Your task to perform on an android device: Set the phone to "Do not disturb". Image 0: 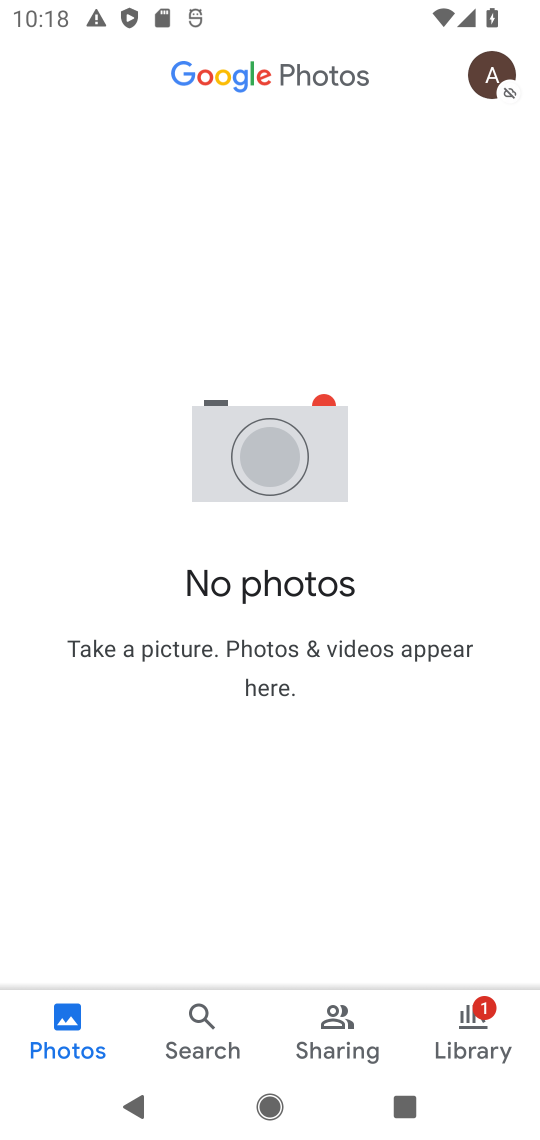
Step 0: press home button
Your task to perform on an android device: Set the phone to "Do not disturb". Image 1: 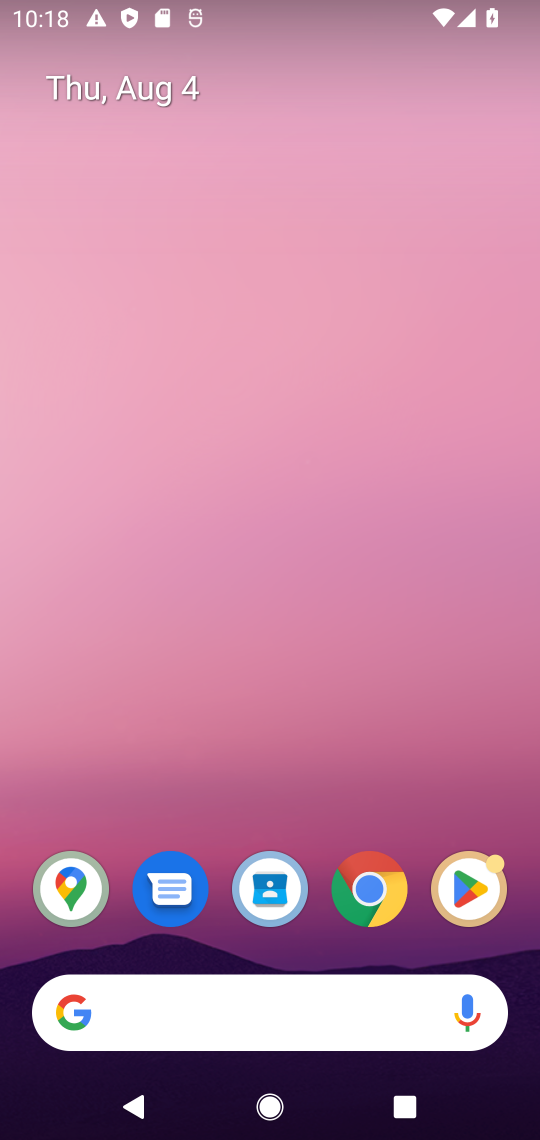
Step 1: drag from (301, 809) to (339, 318)
Your task to perform on an android device: Set the phone to "Do not disturb". Image 2: 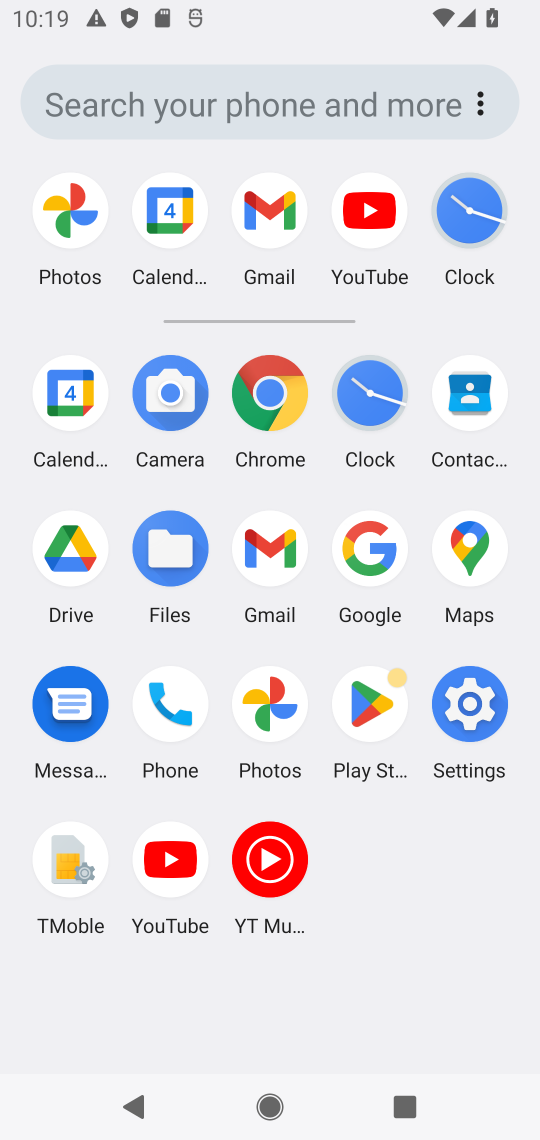
Step 2: click (482, 710)
Your task to perform on an android device: Set the phone to "Do not disturb". Image 3: 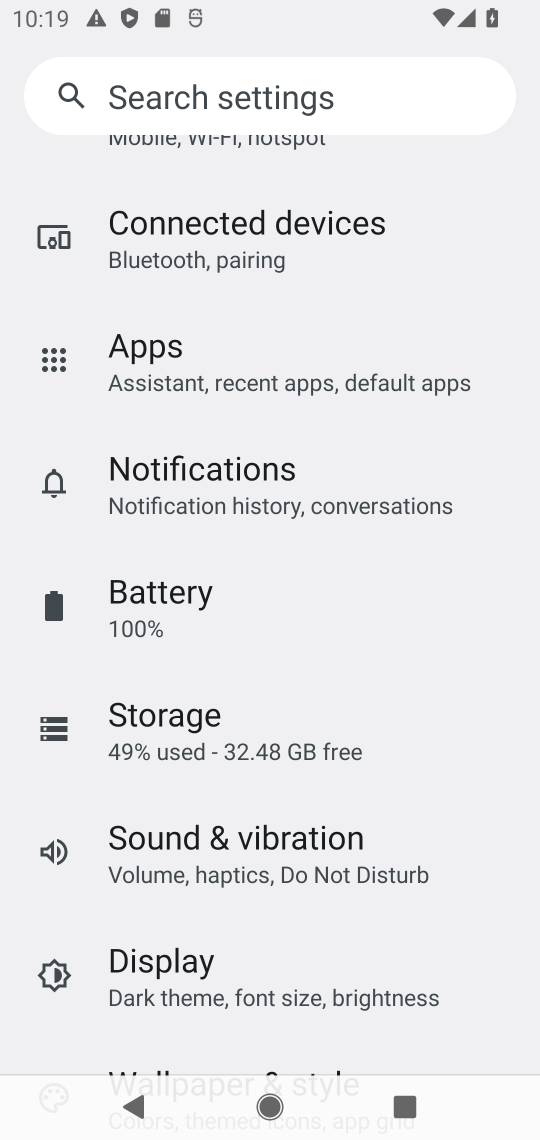
Step 3: drag from (466, 934) to (475, 708)
Your task to perform on an android device: Set the phone to "Do not disturb". Image 4: 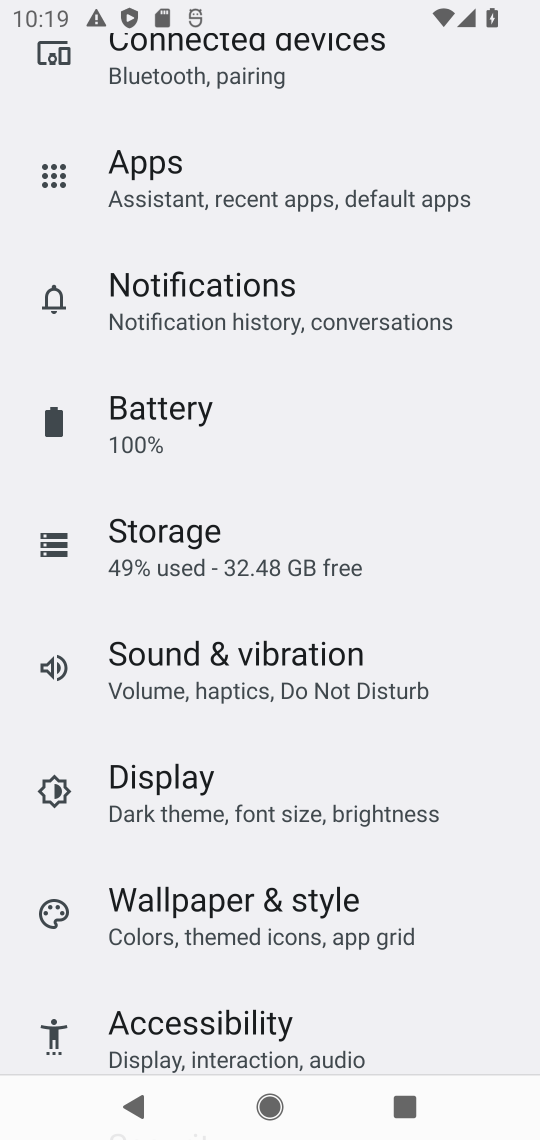
Step 4: drag from (453, 983) to (457, 756)
Your task to perform on an android device: Set the phone to "Do not disturb". Image 5: 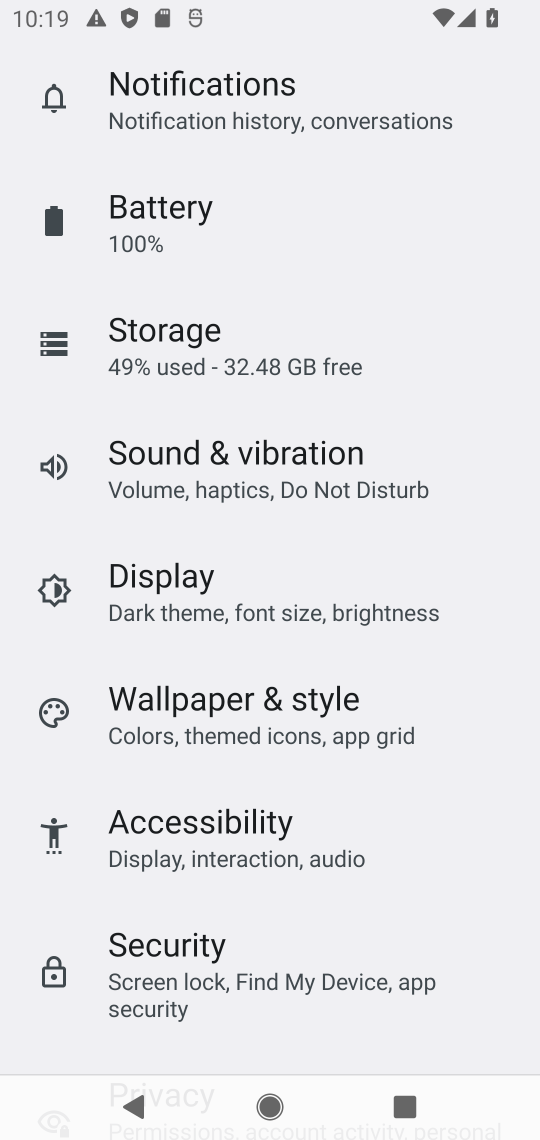
Step 5: drag from (468, 1015) to (470, 807)
Your task to perform on an android device: Set the phone to "Do not disturb". Image 6: 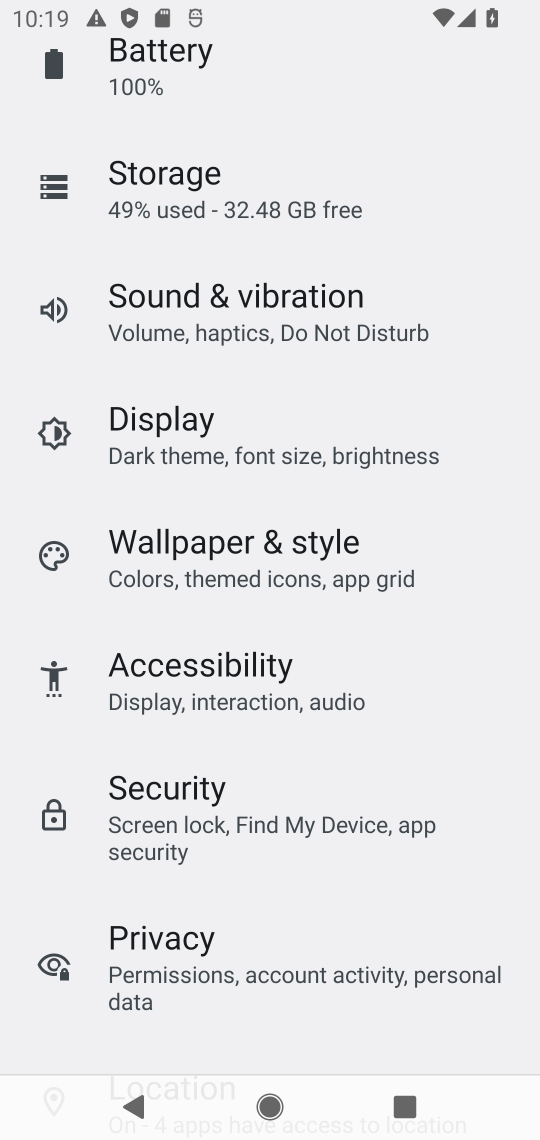
Step 6: drag from (470, 1021) to (475, 802)
Your task to perform on an android device: Set the phone to "Do not disturb". Image 7: 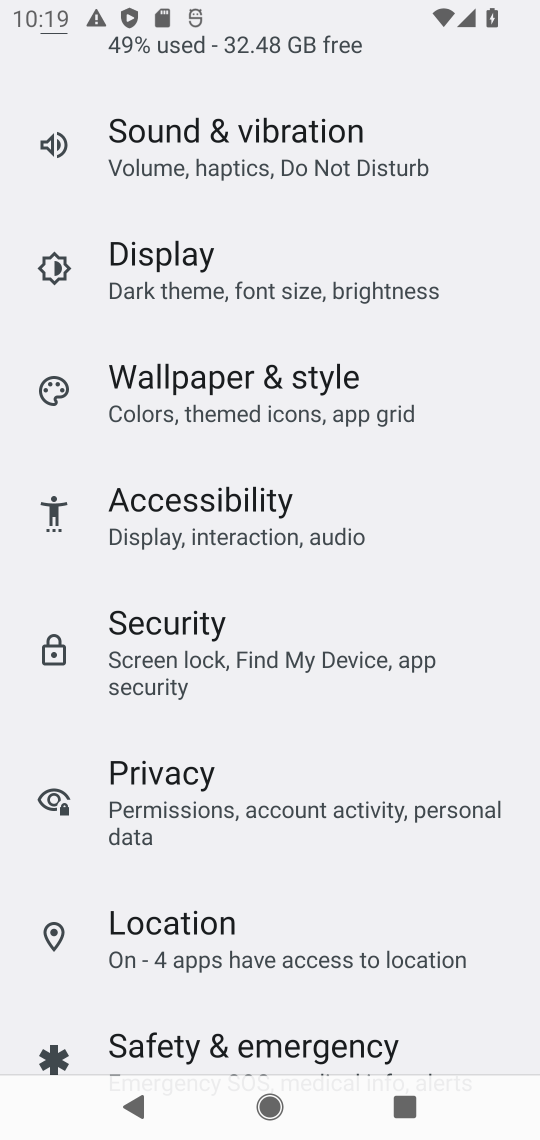
Step 7: drag from (459, 1038) to (463, 872)
Your task to perform on an android device: Set the phone to "Do not disturb". Image 8: 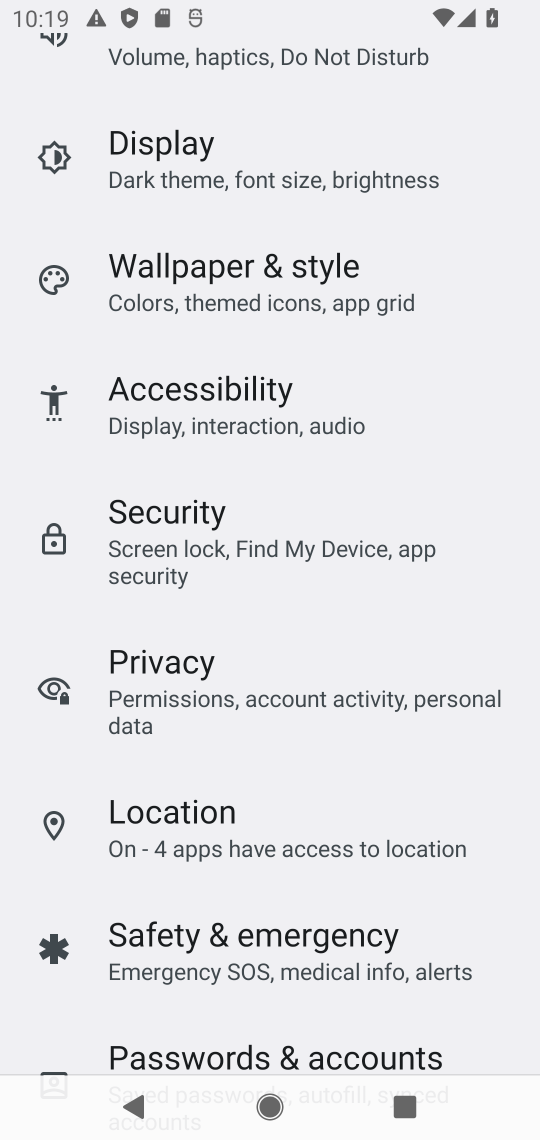
Step 8: drag from (481, 1031) to (493, 784)
Your task to perform on an android device: Set the phone to "Do not disturb". Image 9: 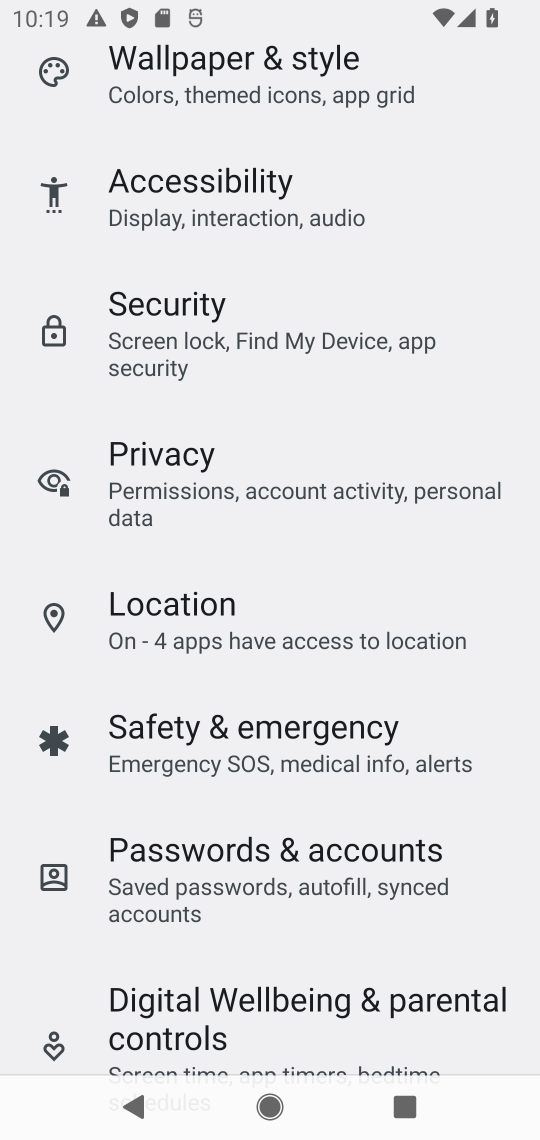
Step 9: drag from (430, 921) to (430, 710)
Your task to perform on an android device: Set the phone to "Do not disturb". Image 10: 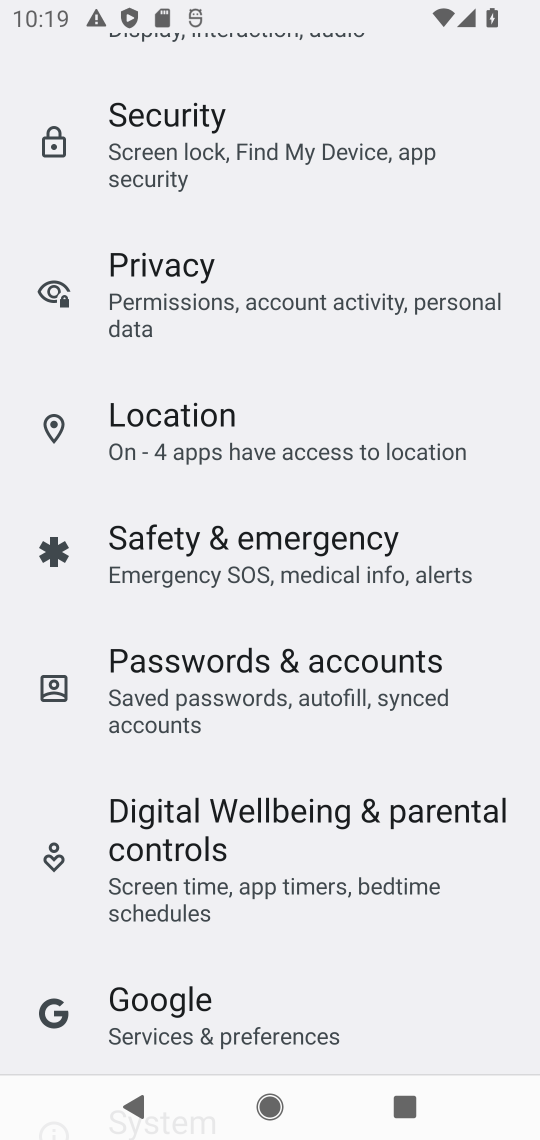
Step 10: drag from (483, 409) to (483, 600)
Your task to perform on an android device: Set the phone to "Do not disturb". Image 11: 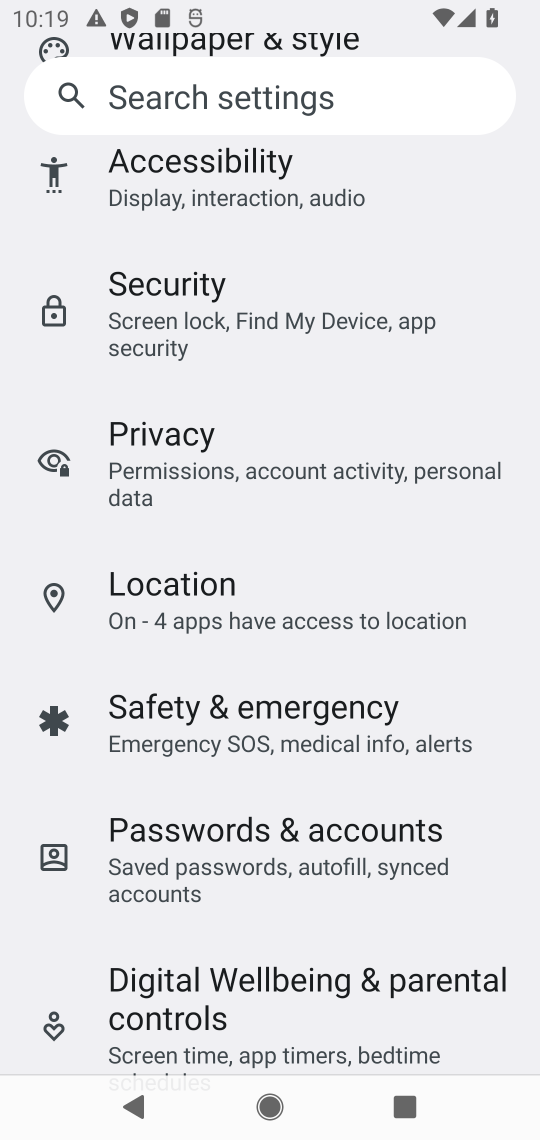
Step 11: drag from (493, 374) to (490, 580)
Your task to perform on an android device: Set the phone to "Do not disturb". Image 12: 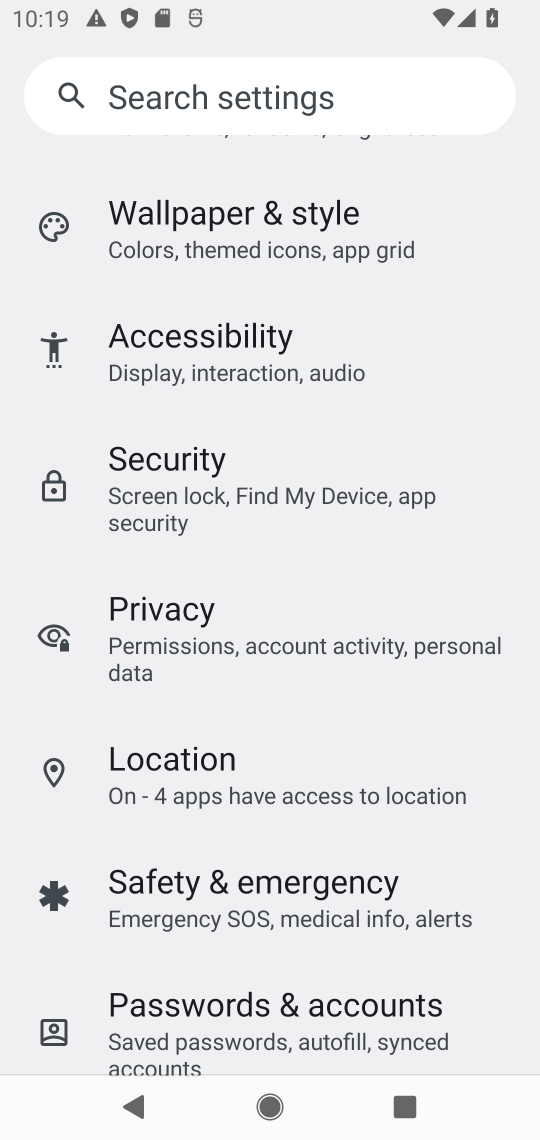
Step 12: drag from (481, 325) to (464, 603)
Your task to perform on an android device: Set the phone to "Do not disturb". Image 13: 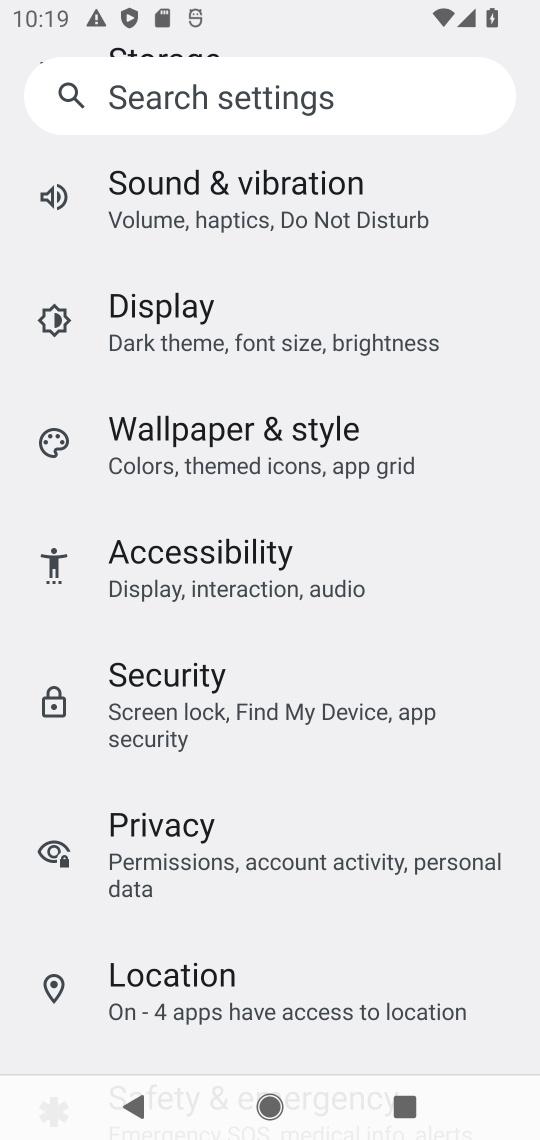
Step 13: drag from (464, 249) to (468, 671)
Your task to perform on an android device: Set the phone to "Do not disturb". Image 14: 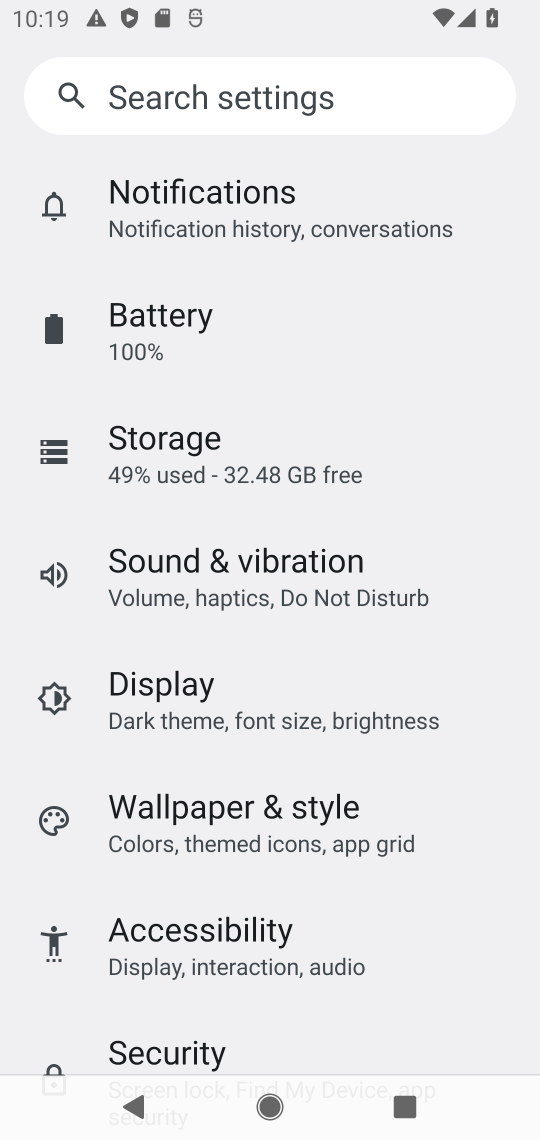
Step 14: click (341, 574)
Your task to perform on an android device: Set the phone to "Do not disturb". Image 15: 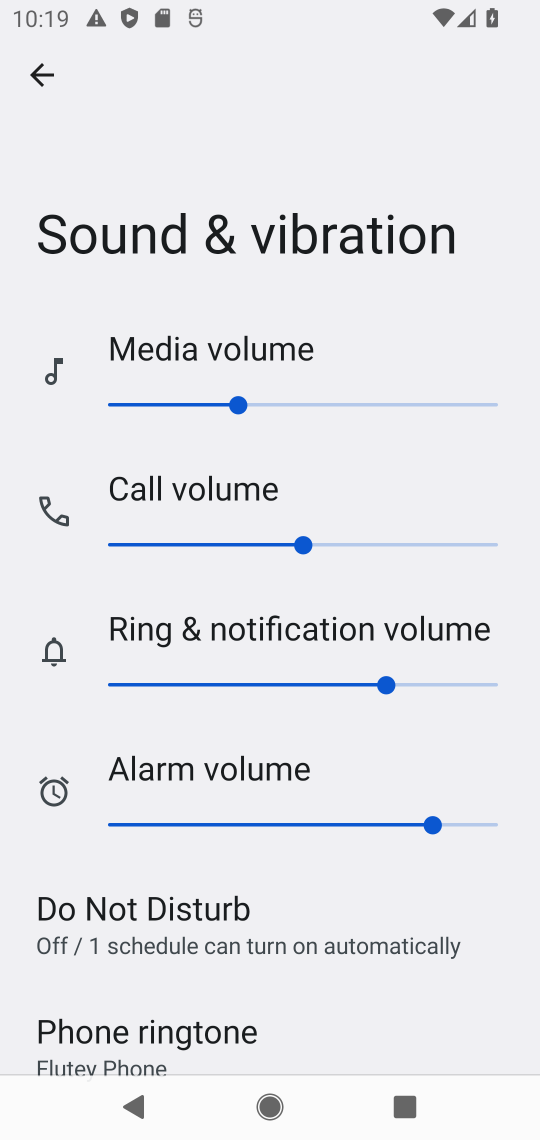
Step 15: click (334, 917)
Your task to perform on an android device: Set the phone to "Do not disturb". Image 16: 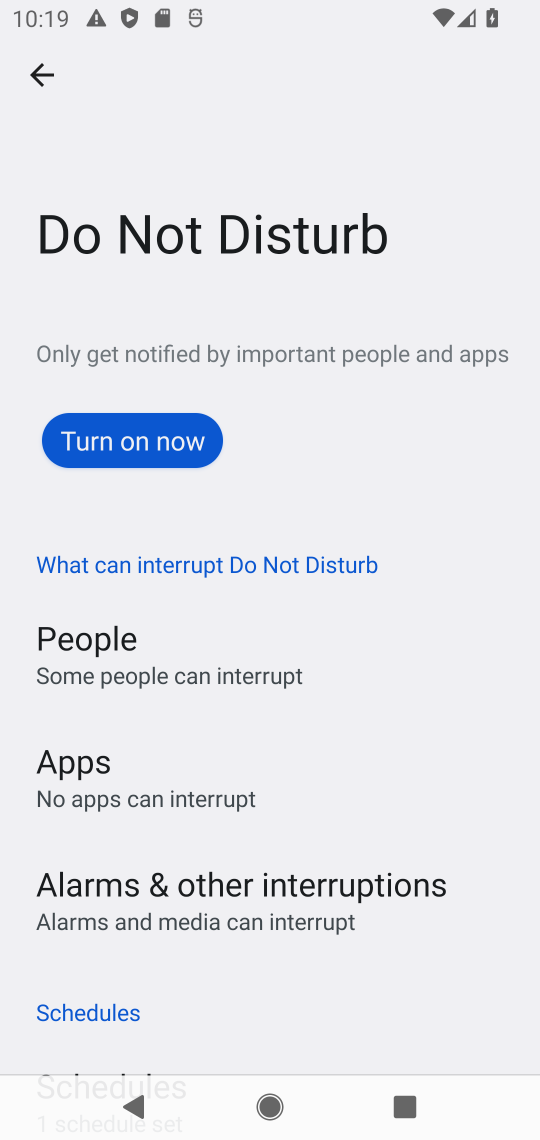
Step 16: click (112, 445)
Your task to perform on an android device: Set the phone to "Do not disturb". Image 17: 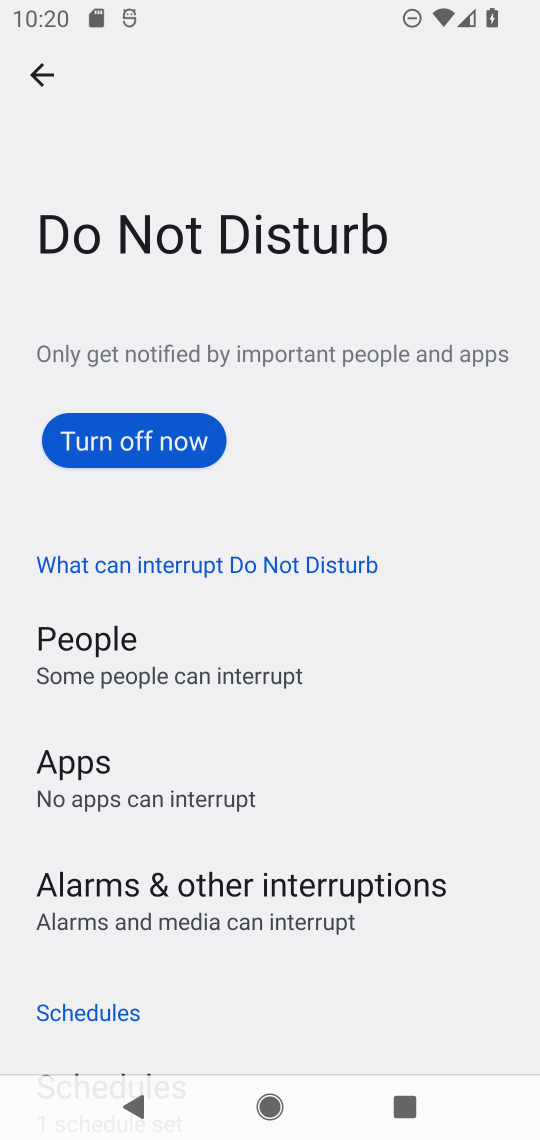
Step 17: task complete